Your task to perform on an android device: Open Google Chrome Image 0: 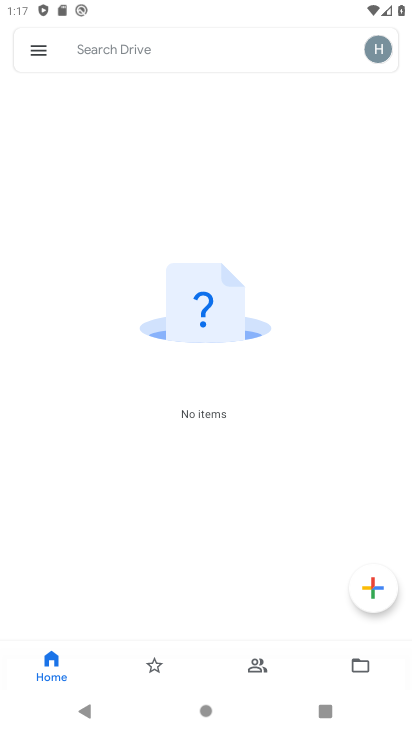
Step 0: press home button
Your task to perform on an android device: Open Google Chrome Image 1: 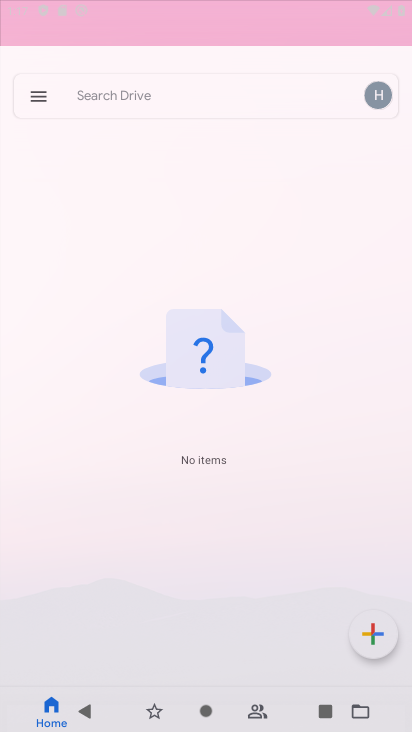
Step 1: click (200, 273)
Your task to perform on an android device: Open Google Chrome Image 2: 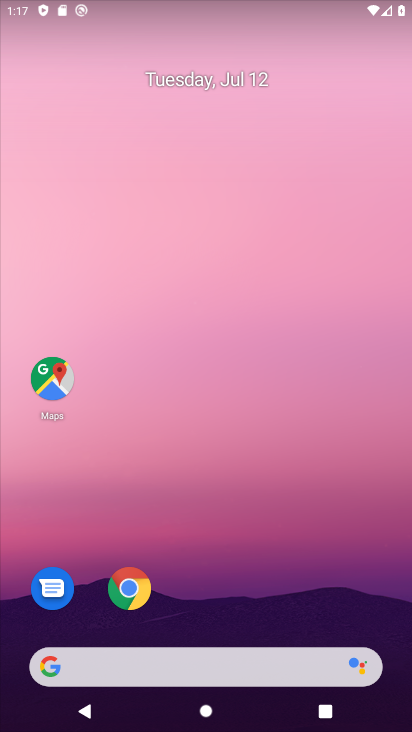
Step 2: drag from (175, 616) to (265, 176)
Your task to perform on an android device: Open Google Chrome Image 3: 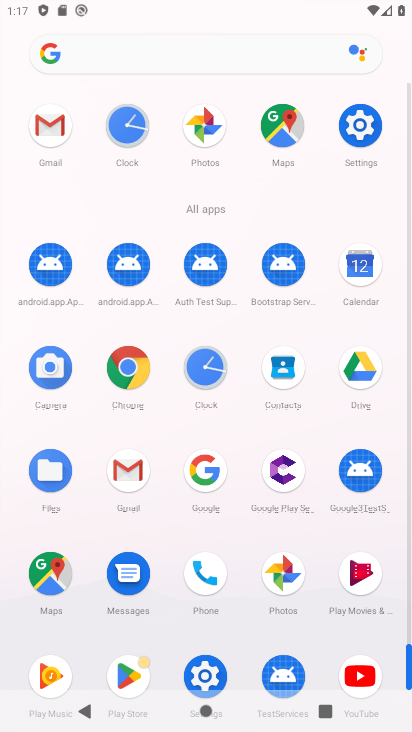
Step 3: click (284, 580)
Your task to perform on an android device: Open Google Chrome Image 4: 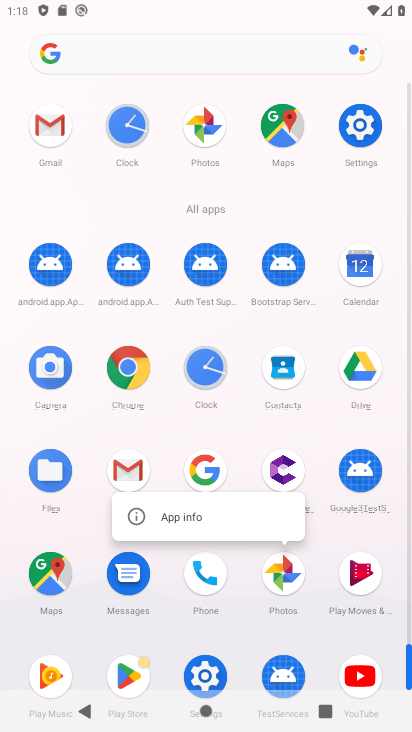
Step 4: click (115, 373)
Your task to perform on an android device: Open Google Chrome Image 5: 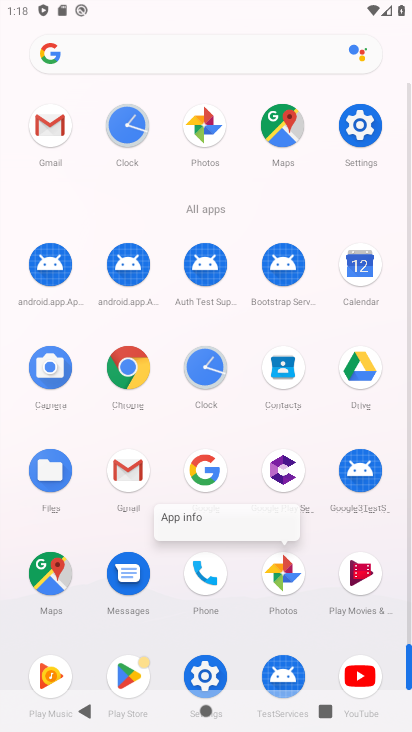
Step 5: click (118, 372)
Your task to perform on an android device: Open Google Chrome Image 6: 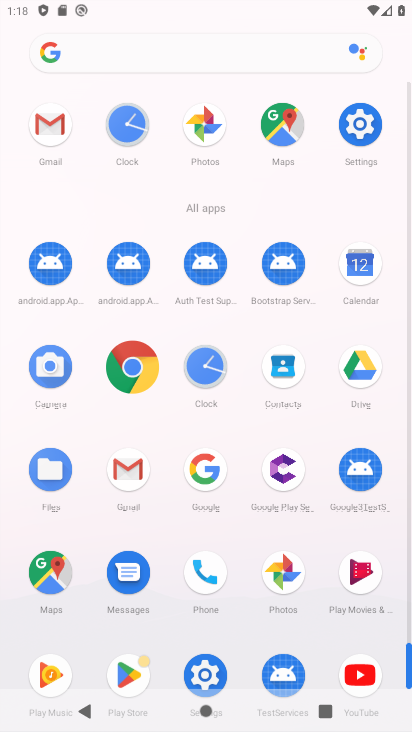
Step 6: click (122, 371)
Your task to perform on an android device: Open Google Chrome Image 7: 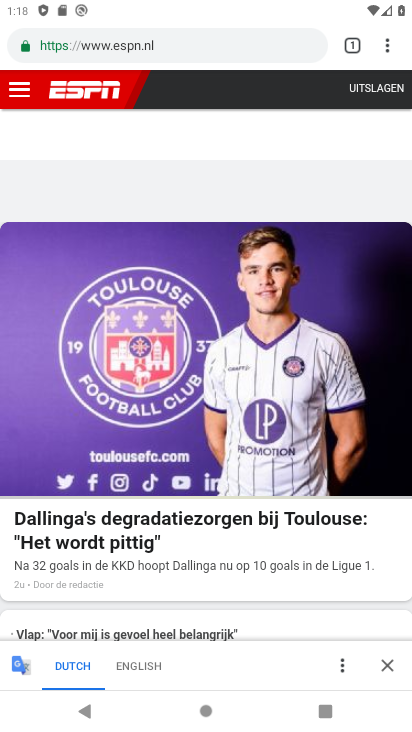
Step 7: task complete